Your task to perform on an android device: Install the News app Image 0: 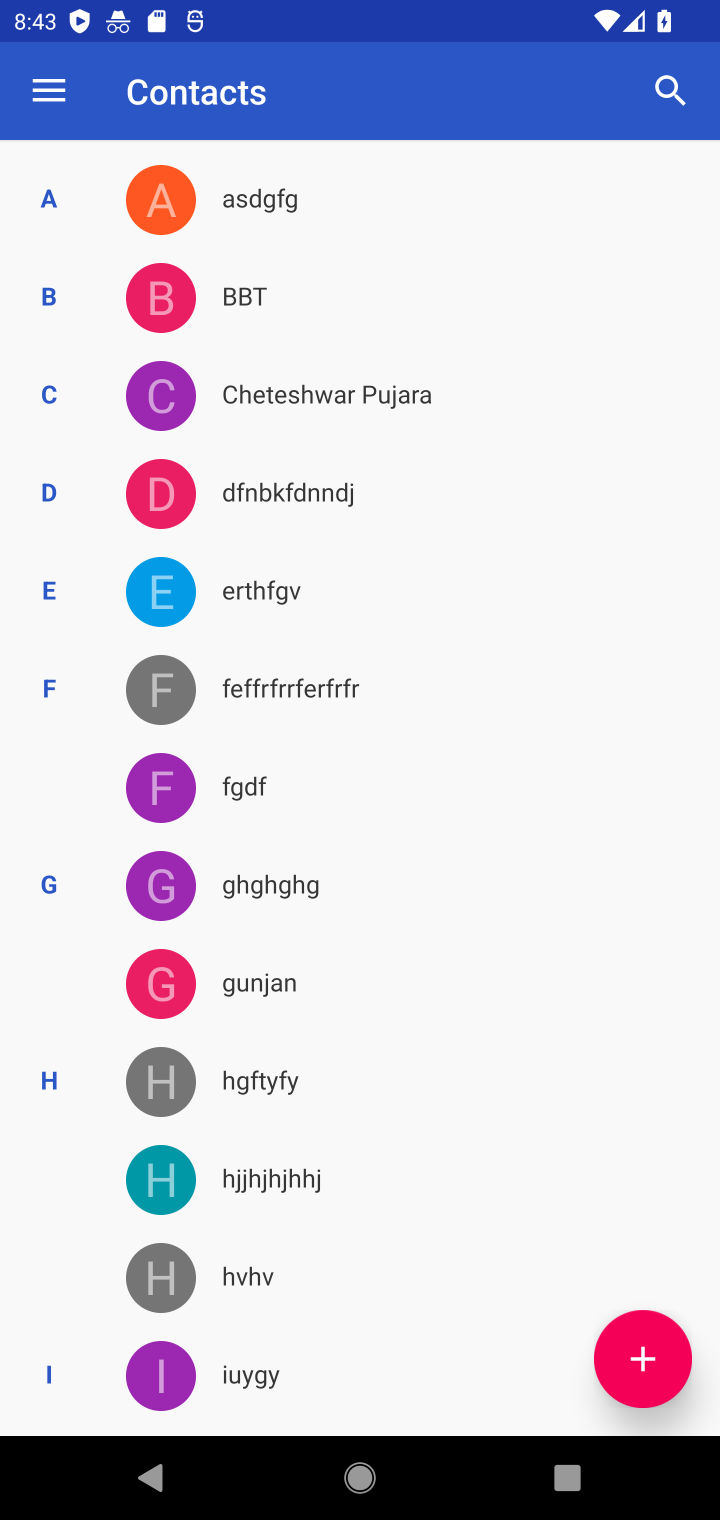
Step 0: press home button
Your task to perform on an android device: Install the News app Image 1: 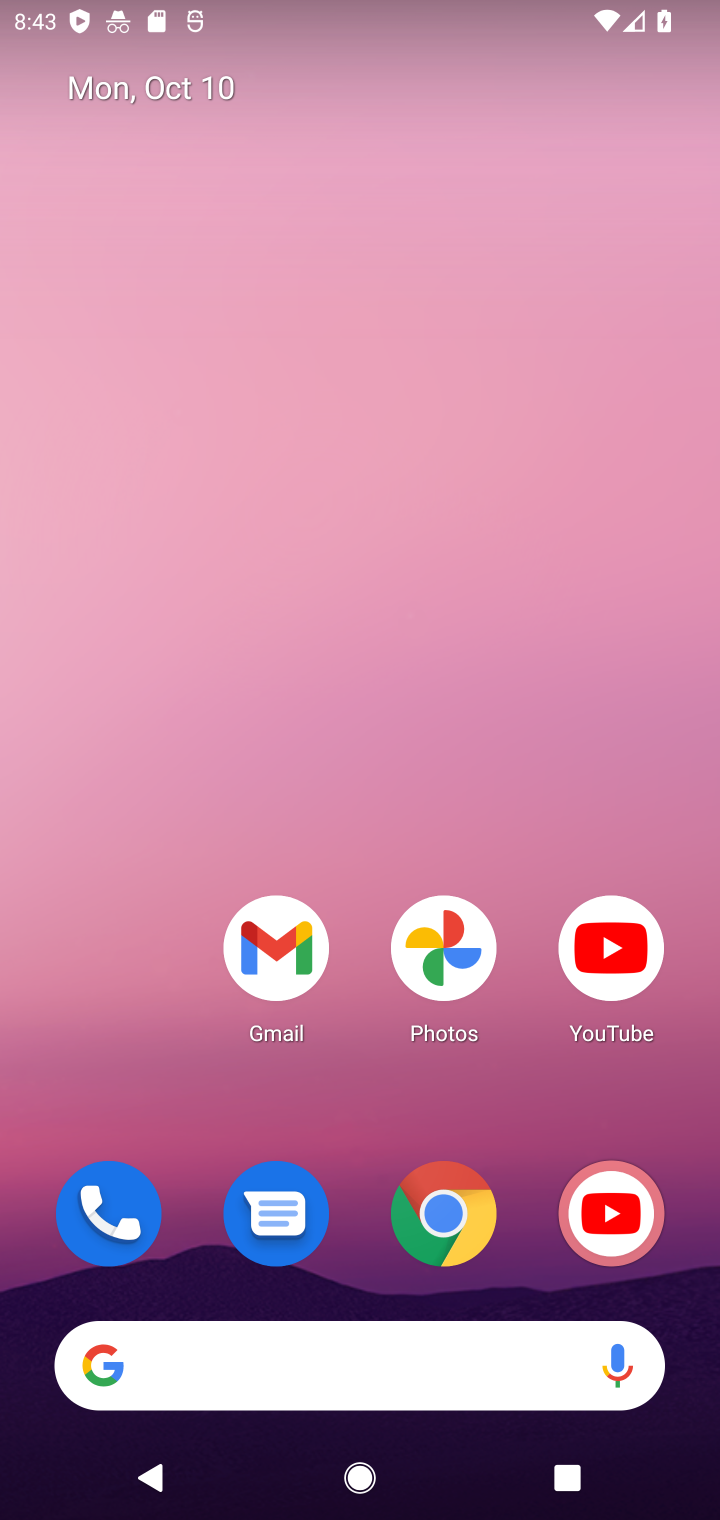
Step 1: drag from (158, 824) to (240, 129)
Your task to perform on an android device: Install the News app Image 2: 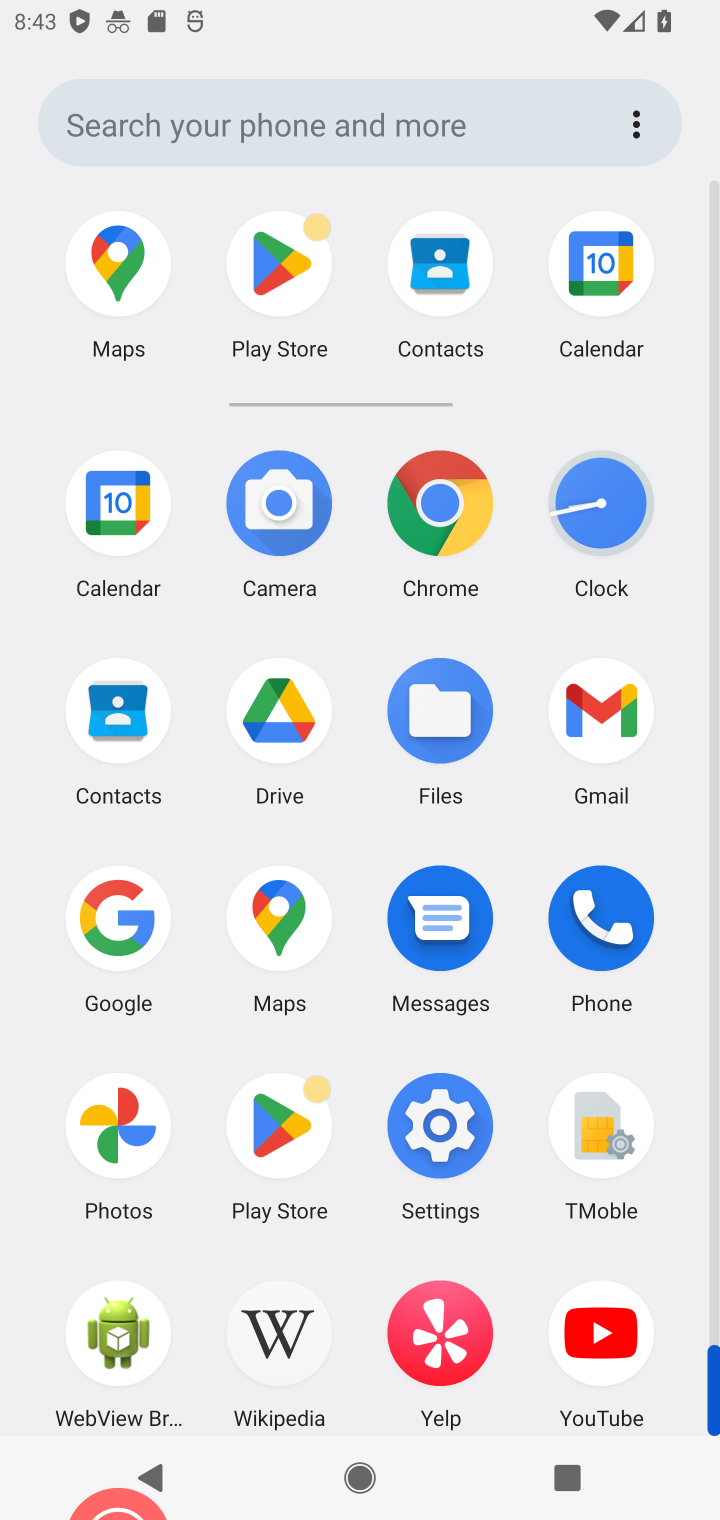
Step 2: click (308, 273)
Your task to perform on an android device: Install the News app Image 3: 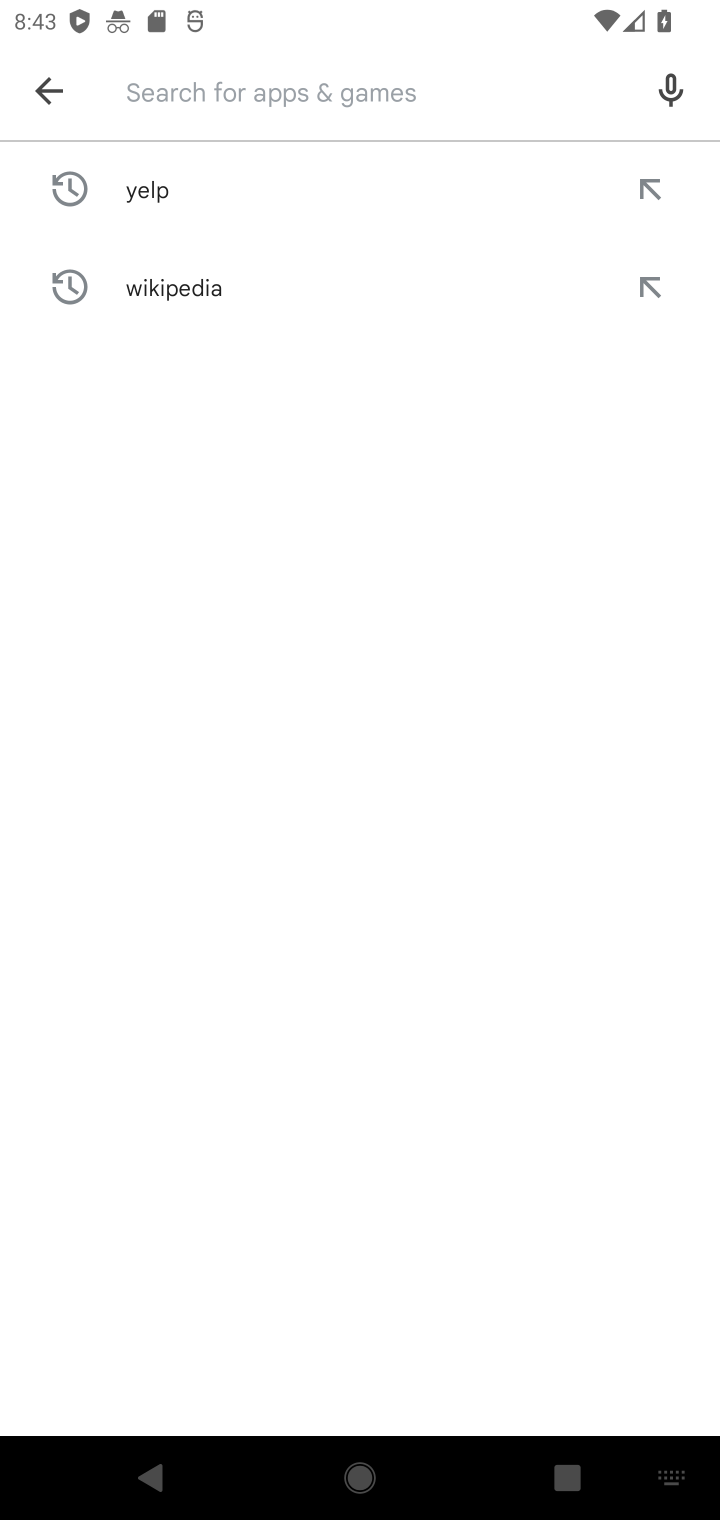
Step 3: click (126, 66)
Your task to perform on an android device: Install the News app Image 4: 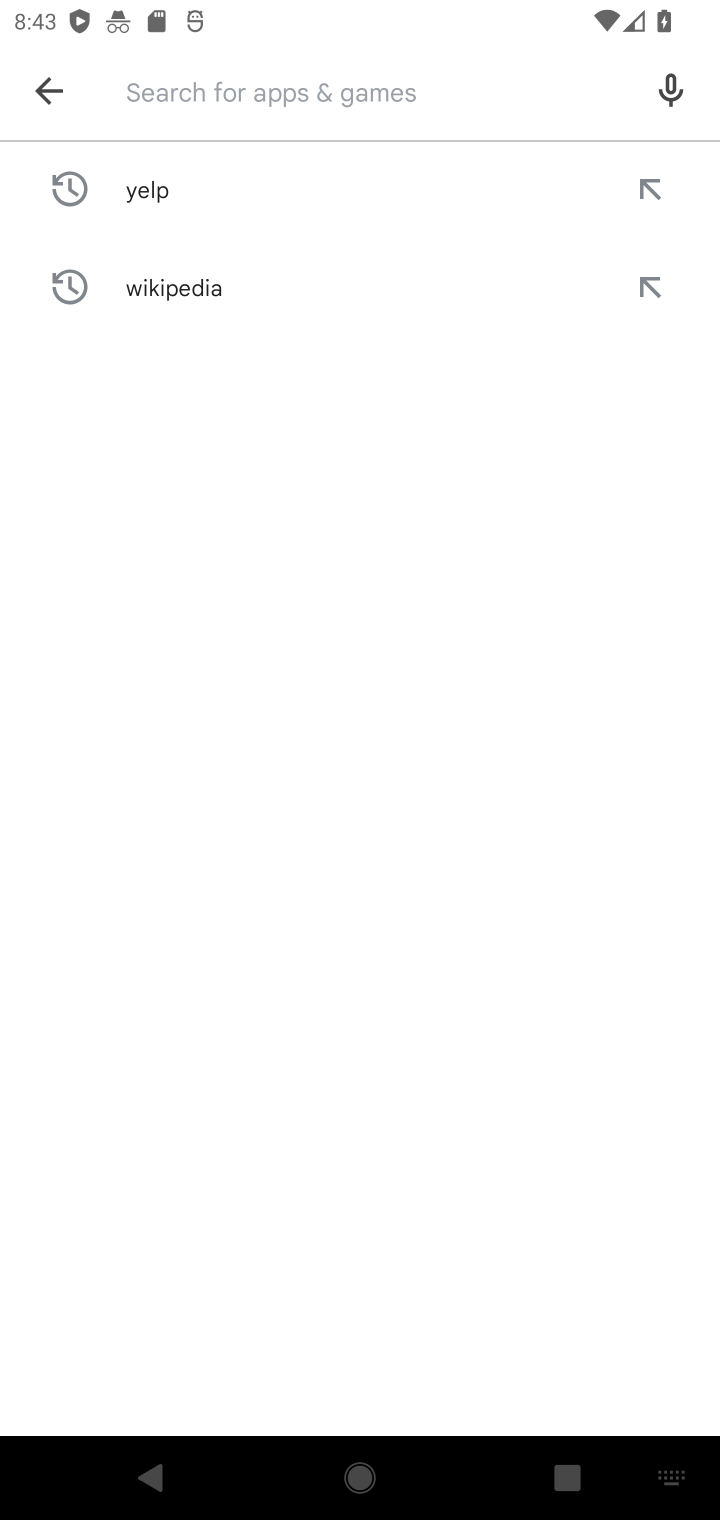
Step 4: type "news app"
Your task to perform on an android device: Install the News app Image 5: 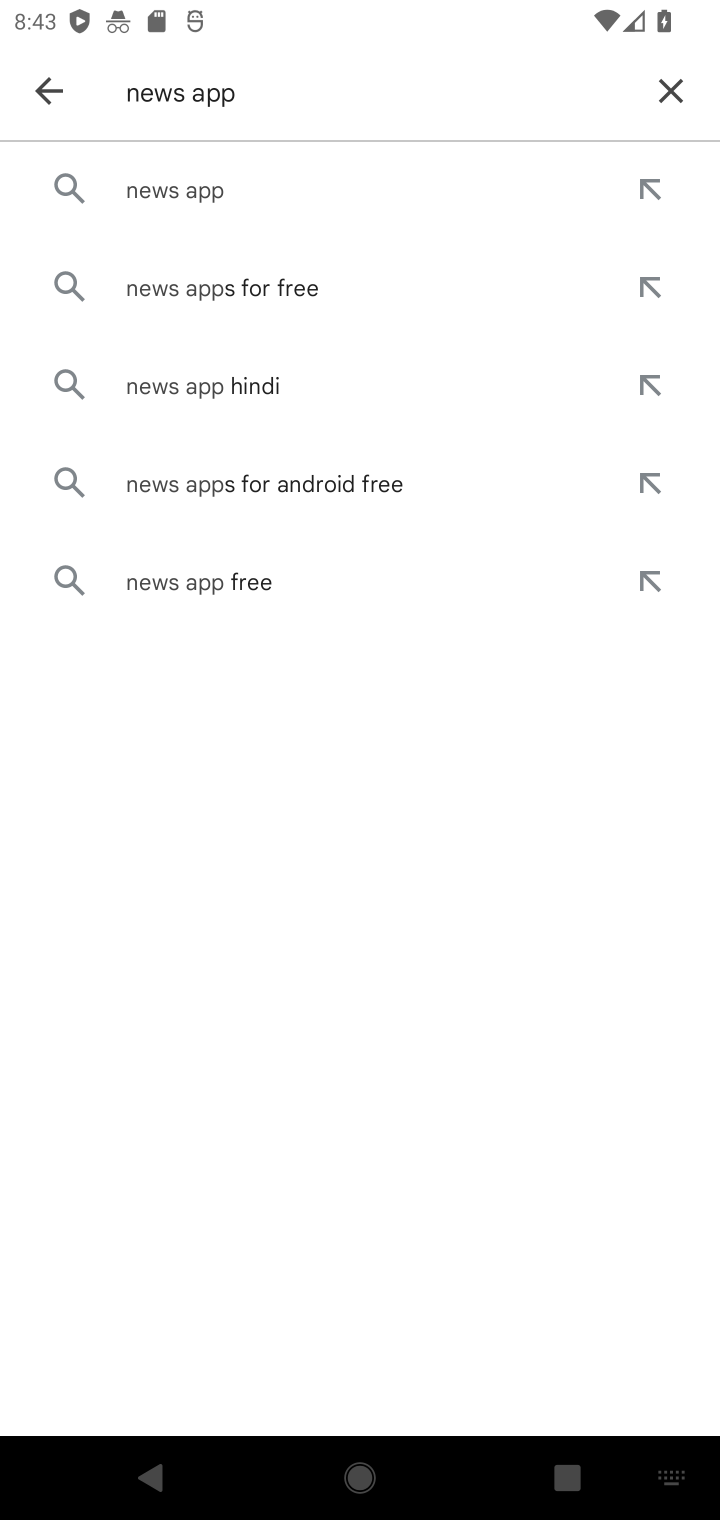
Step 5: click (193, 174)
Your task to perform on an android device: Install the News app Image 6: 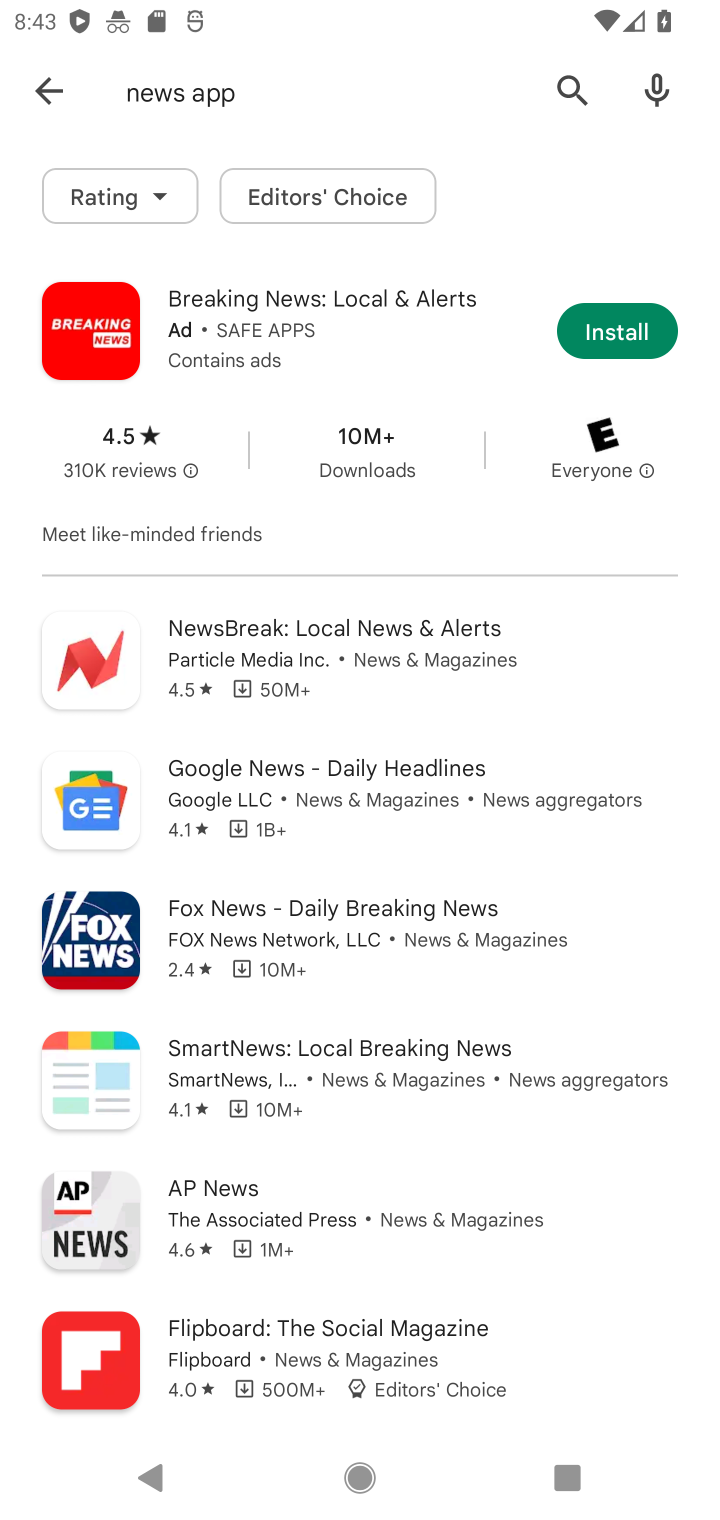
Step 6: click (267, 648)
Your task to perform on an android device: Install the News app Image 7: 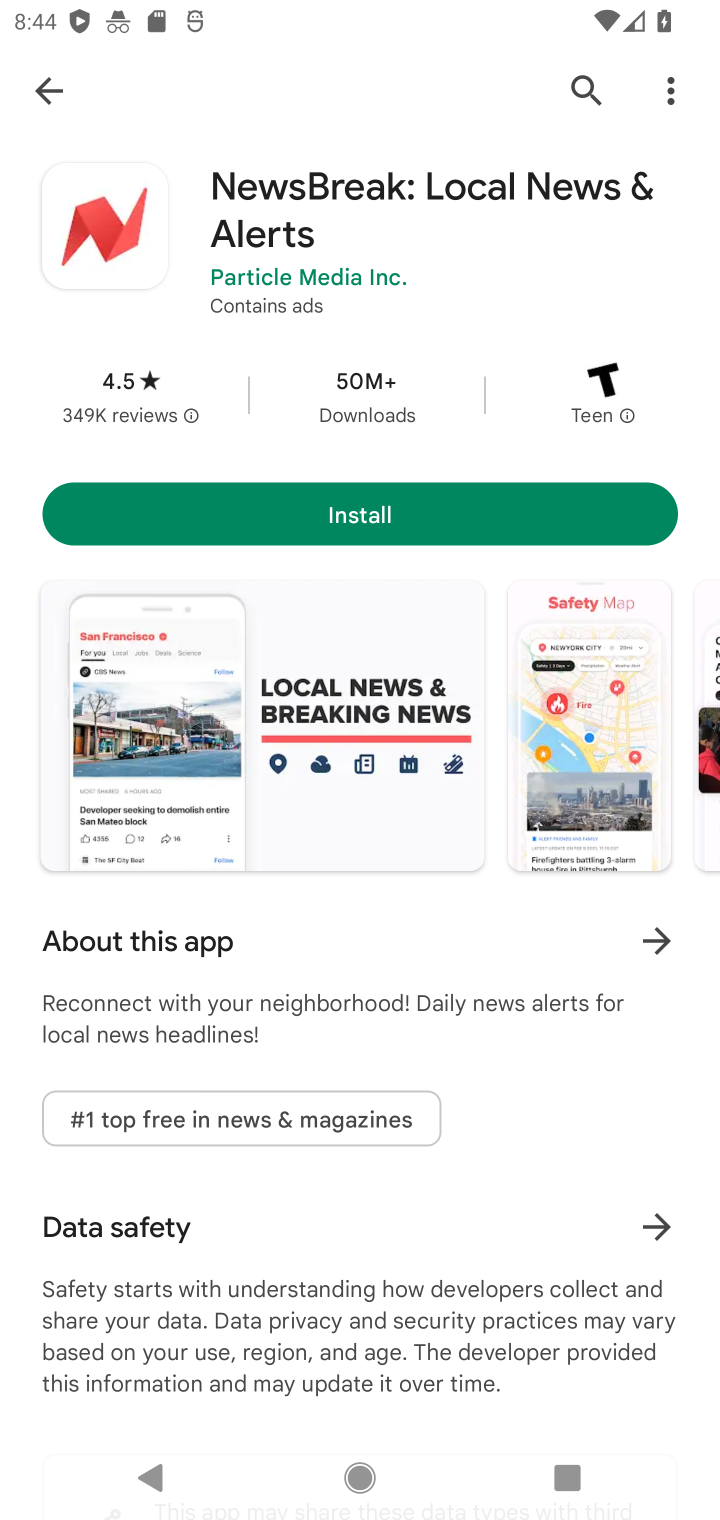
Step 7: click (367, 511)
Your task to perform on an android device: Install the News app Image 8: 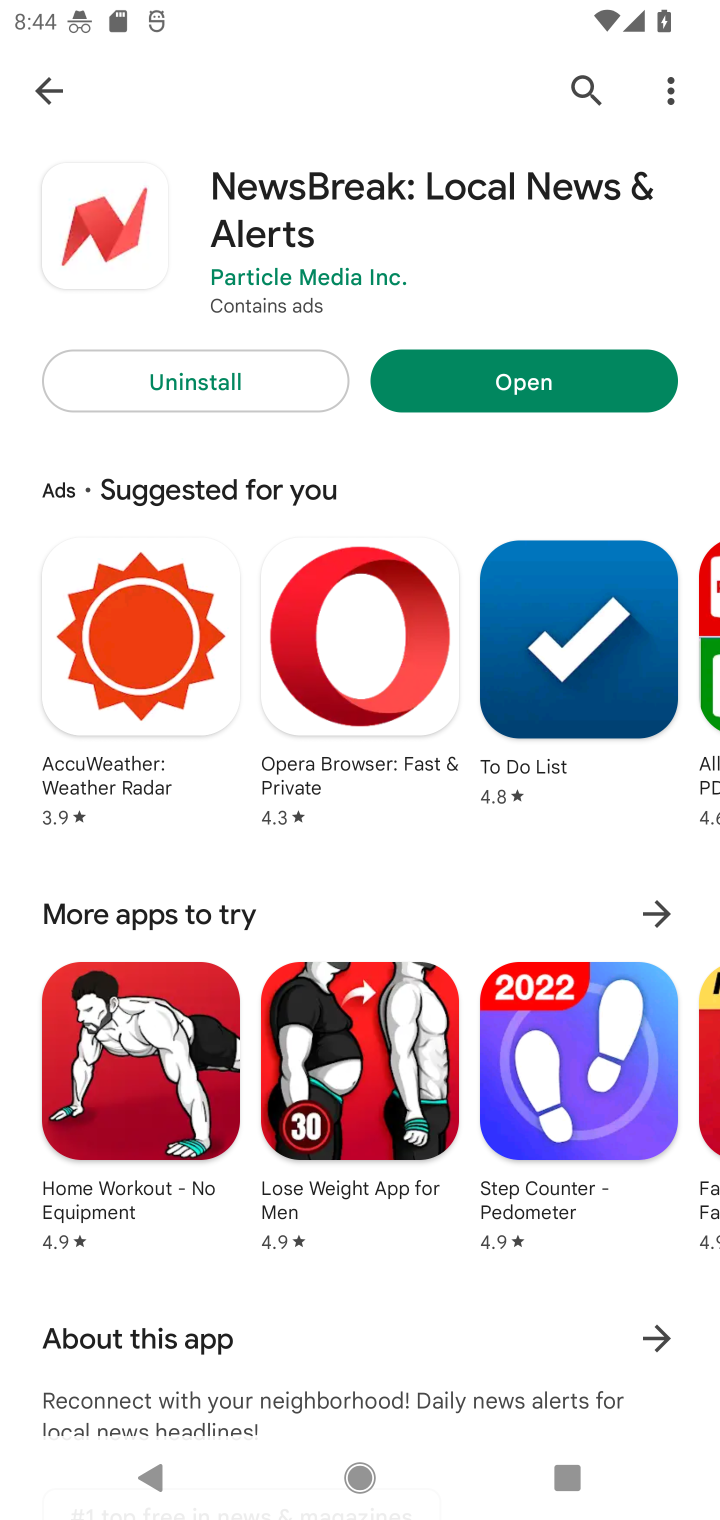
Step 8: task complete